Your task to perform on an android device: Turn off the flashlight Image 0: 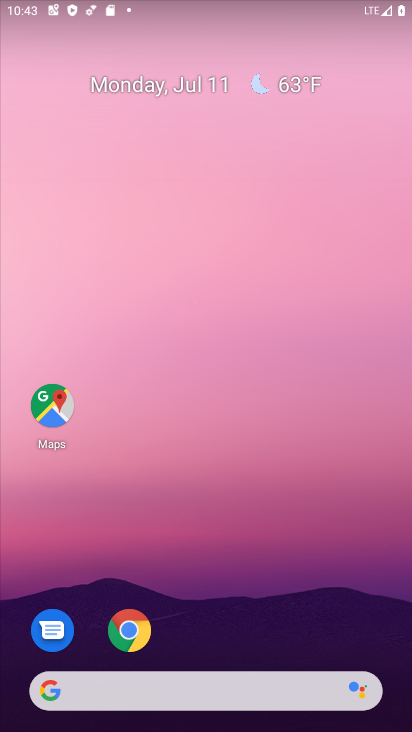
Step 0: drag from (221, 10) to (194, 444)
Your task to perform on an android device: Turn off the flashlight Image 1: 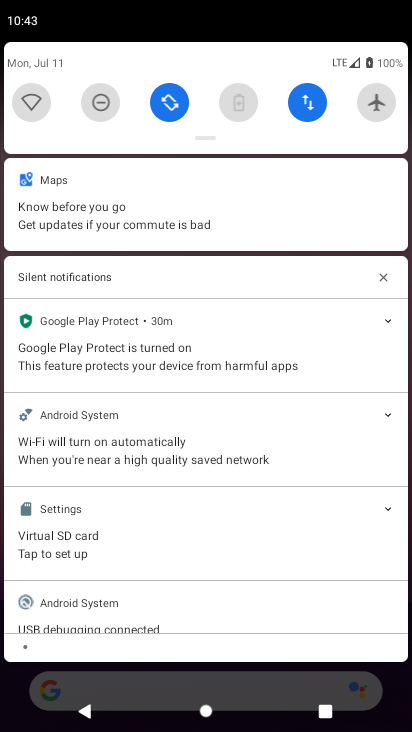
Step 1: drag from (206, 140) to (193, 432)
Your task to perform on an android device: Turn off the flashlight Image 2: 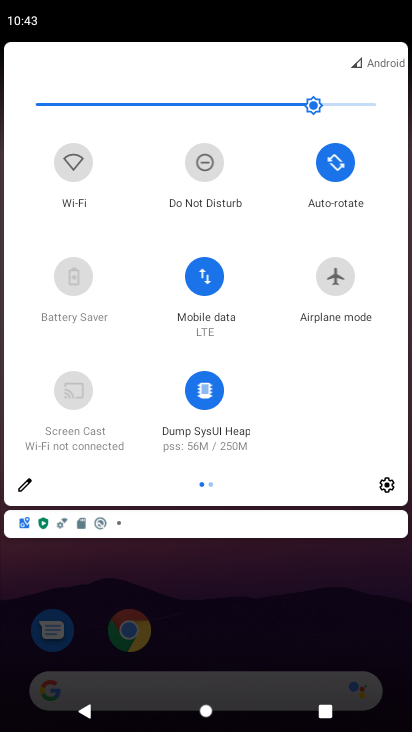
Step 2: click (22, 484)
Your task to perform on an android device: Turn off the flashlight Image 3: 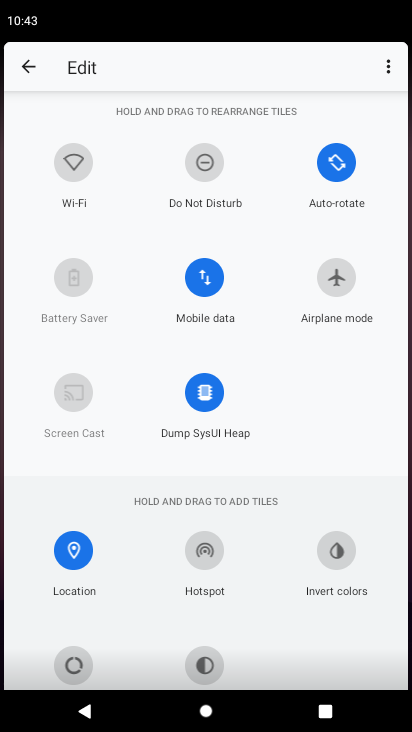
Step 3: task complete